Your task to perform on an android device: Go to Google maps Image 0: 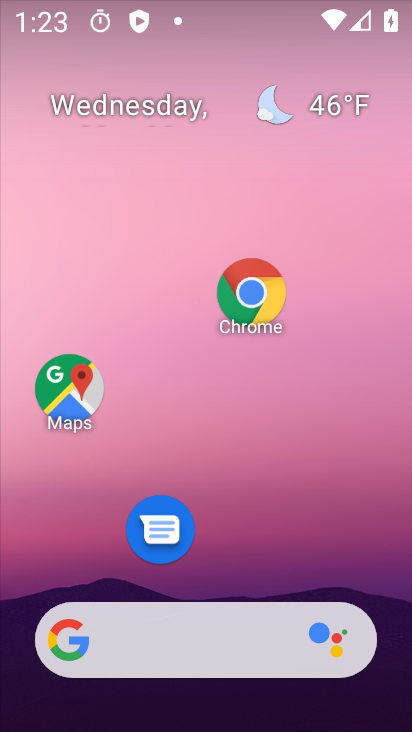
Step 0: click (60, 366)
Your task to perform on an android device: Go to Google maps Image 1: 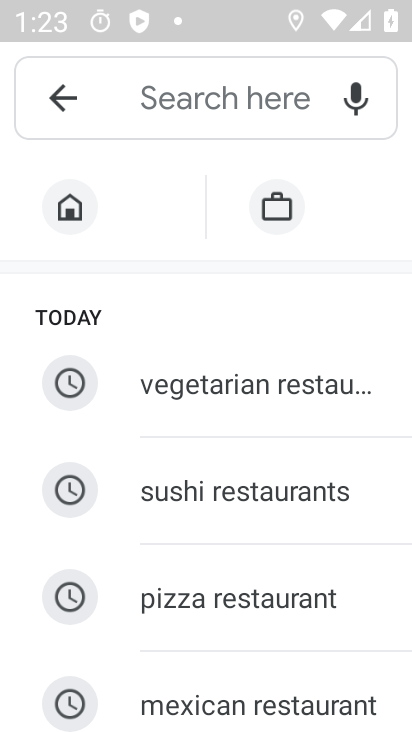
Step 1: task complete